Your task to perform on an android device: turn on showing notifications on the lock screen Image 0: 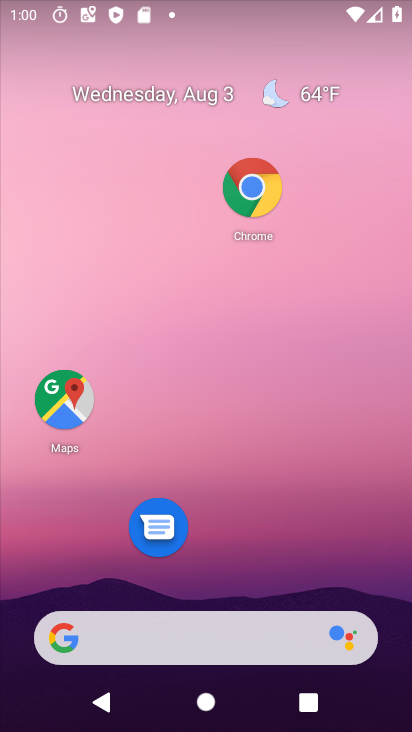
Step 0: drag from (221, 586) to (241, 0)
Your task to perform on an android device: turn on showing notifications on the lock screen Image 1: 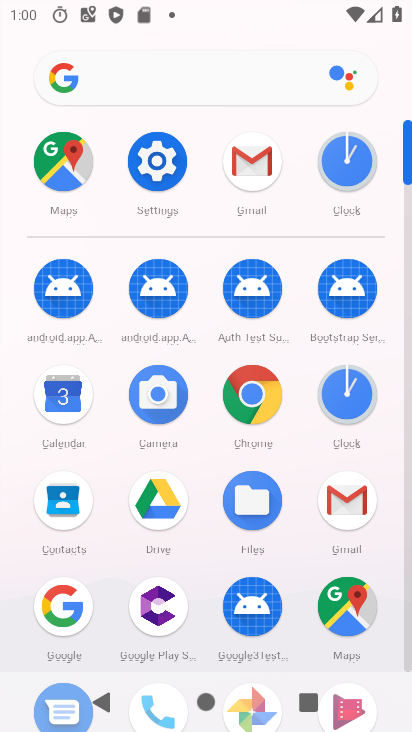
Step 1: click (158, 172)
Your task to perform on an android device: turn on showing notifications on the lock screen Image 2: 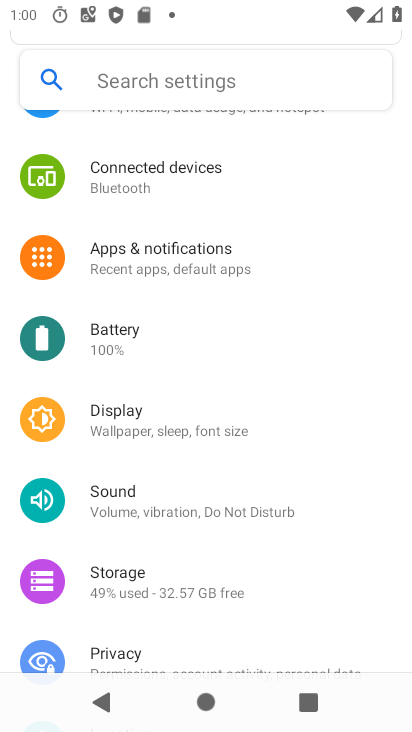
Step 2: click (150, 266)
Your task to perform on an android device: turn on showing notifications on the lock screen Image 3: 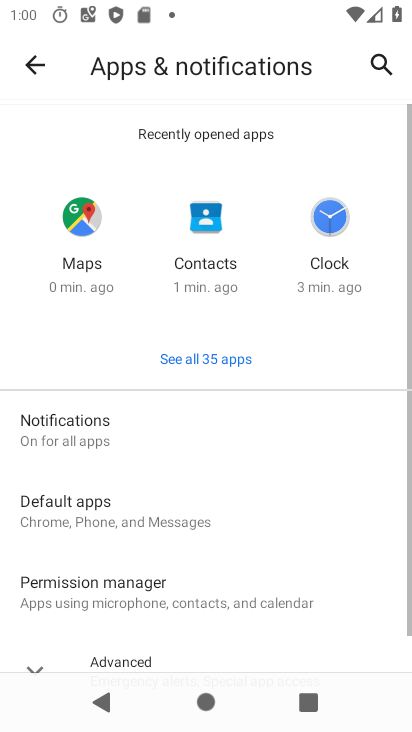
Step 3: click (83, 440)
Your task to perform on an android device: turn on showing notifications on the lock screen Image 4: 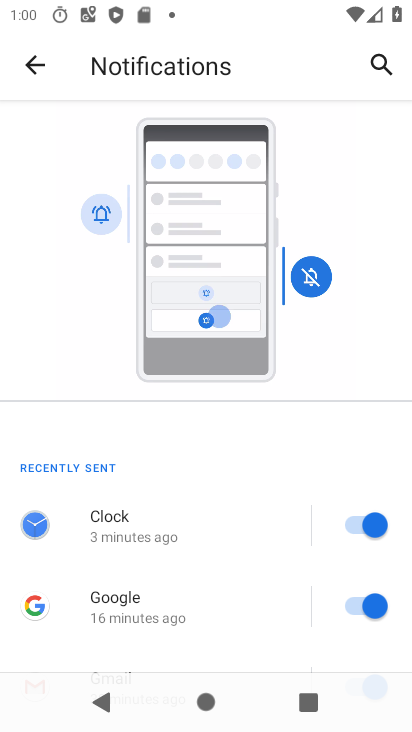
Step 4: drag from (163, 593) to (156, 216)
Your task to perform on an android device: turn on showing notifications on the lock screen Image 5: 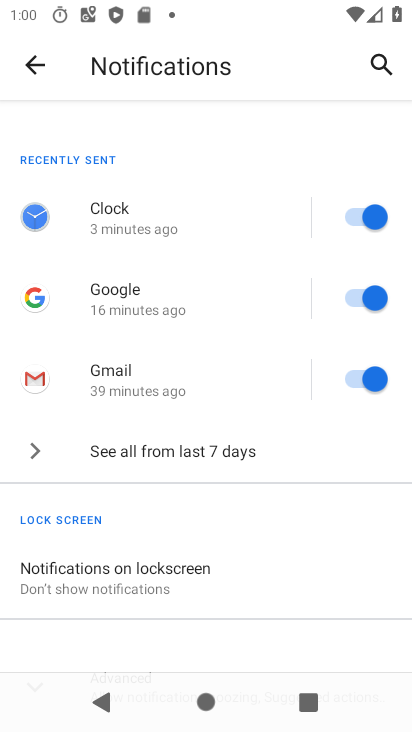
Step 5: drag from (124, 575) to (153, 367)
Your task to perform on an android device: turn on showing notifications on the lock screen Image 6: 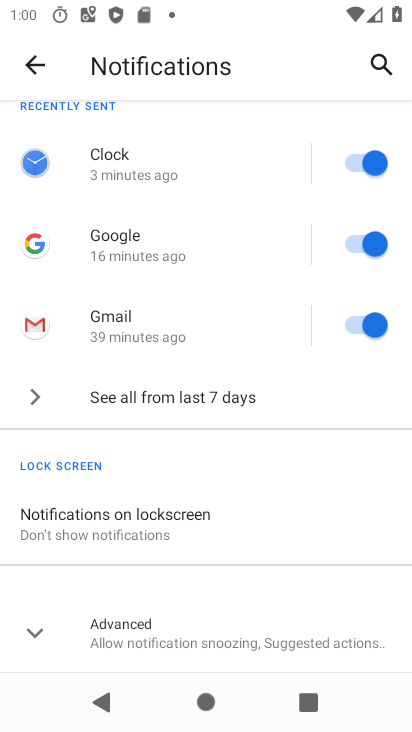
Step 6: click (95, 532)
Your task to perform on an android device: turn on showing notifications on the lock screen Image 7: 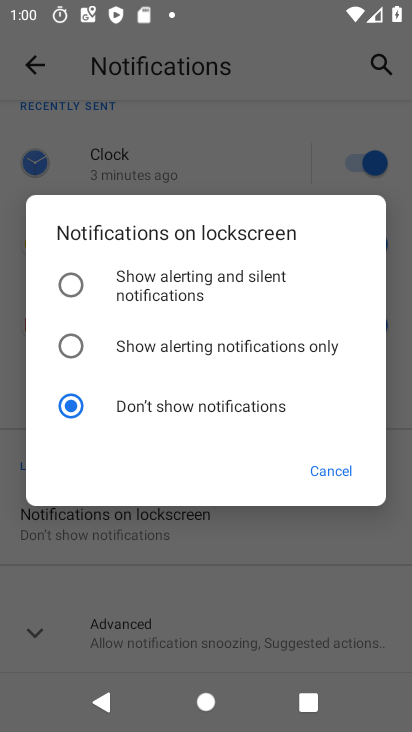
Step 7: click (100, 286)
Your task to perform on an android device: turn on showing notifications on the lock screen Image 8: 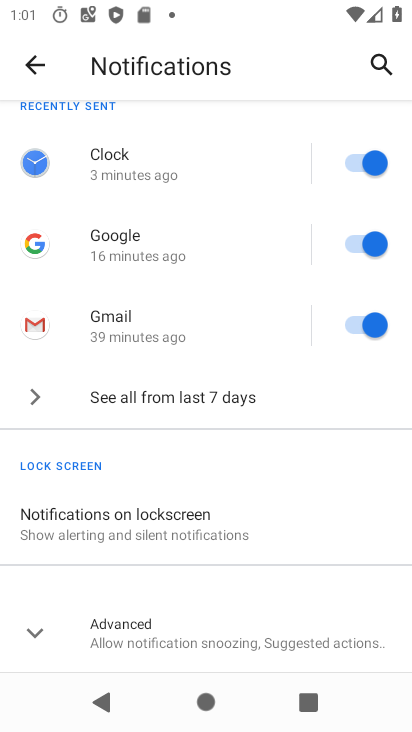
Step 8: task complete